Your task to perform on an android device: Open Amazon Image 0: 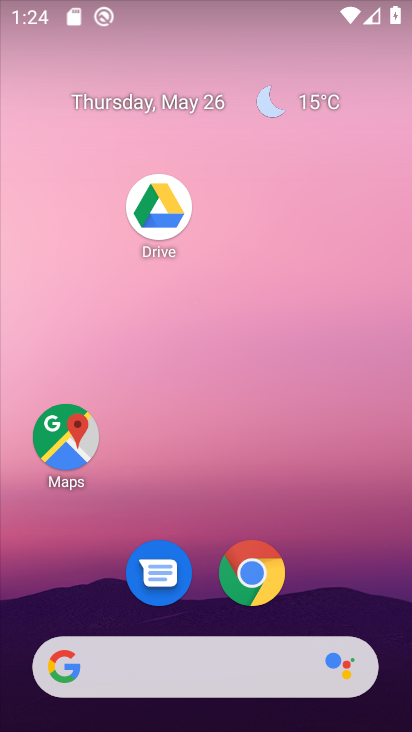
Step 0: click (266, 595)
Your task to perform on an android device: Open Amazon Image 1: 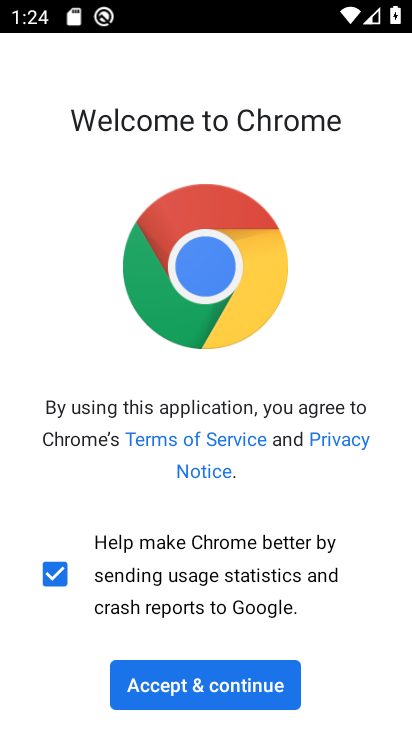
Step 1: click (246, 683)
Your task to perform on an android device: Open Amazon Image 2: 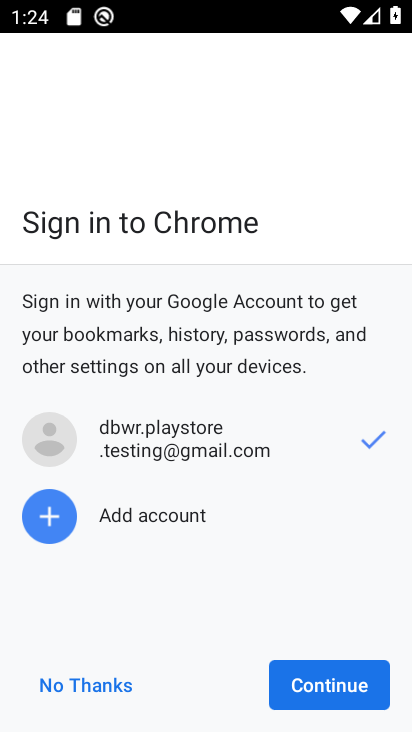
Step 2: click (333, 686)
Your task to perform on an android device: Open Amazon Image 3: 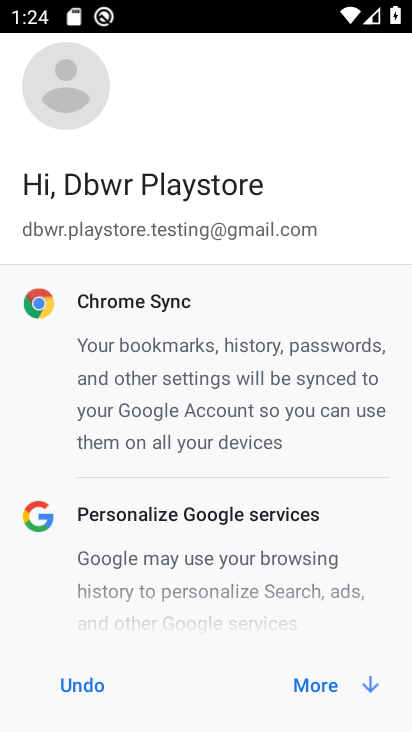
Step 3: click (333, 685)
Your task to perform on an android device: Open Amazon Image 4: 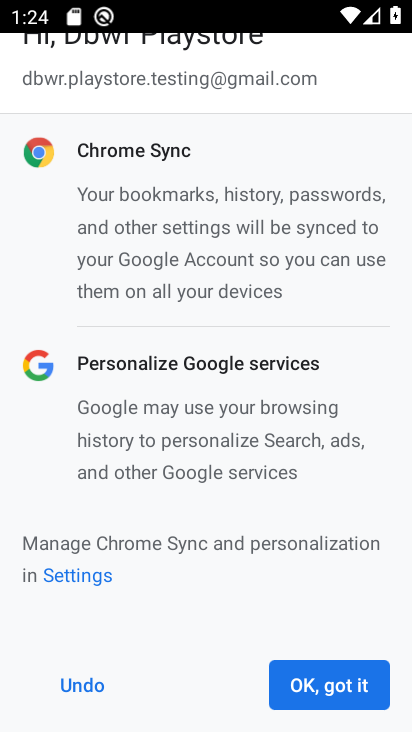
Step 4: click (333, 685)
Your task to perform on an android device: Open Amazon Image 5: 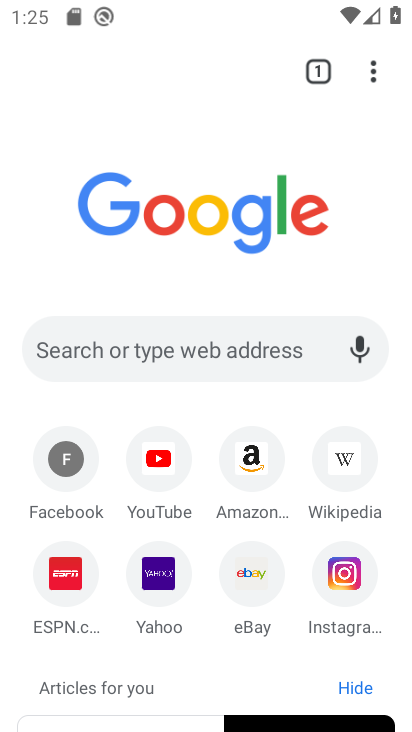
Step 5: click (245, 458)
Your task to perform on an android device: Open Amazon Image 6: 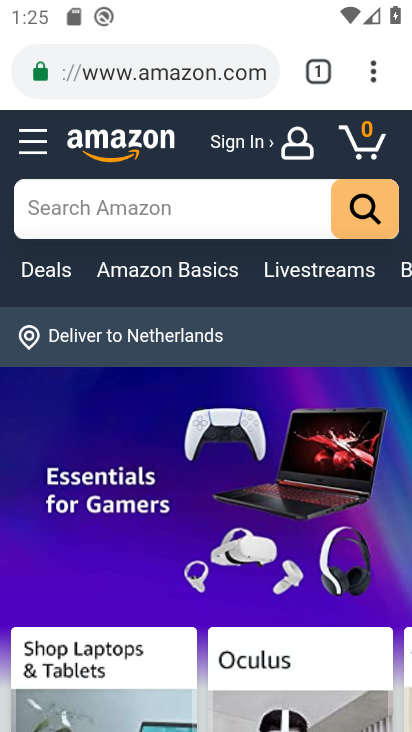
Step 6: task complete